Your task to perform on an android device: turn off notifications settings in the gmail app Image 0: 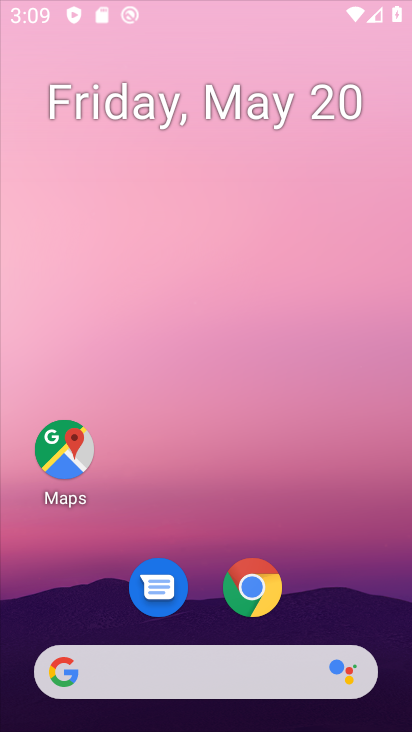
Step 0: press home button
Your task to perform on an android device: turn off notifications settings in the gmail app Image 1: 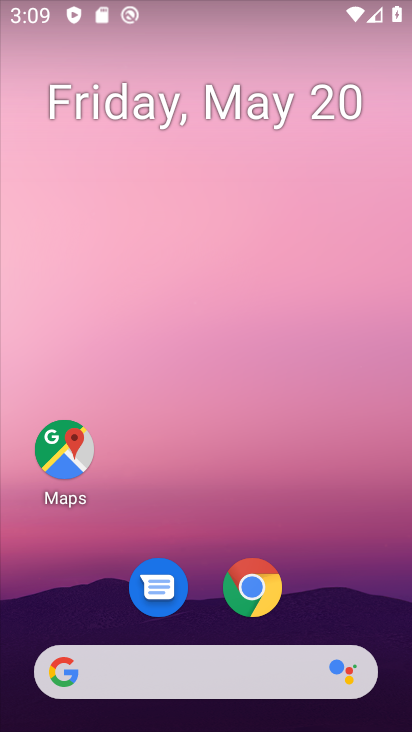
Step 1: drag from (345, 600) to (296, 63)
Your task to perform on an android device: turn off notifications settings in the gmail app Image 2: 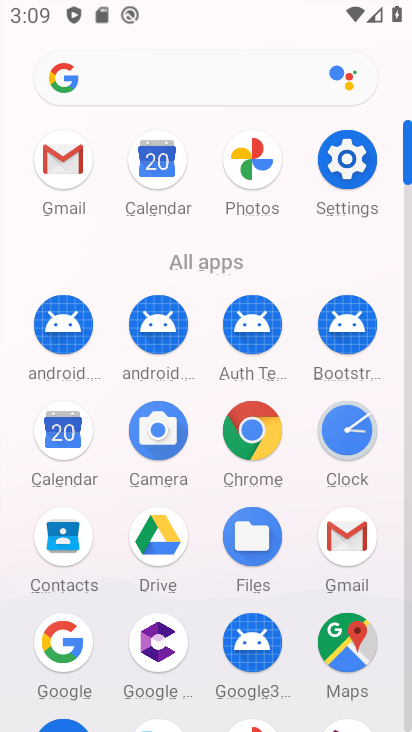
Step 2: click (351, 532)
Your task to perform on an android device: turn off notifications settings in the gmail app Image 3: 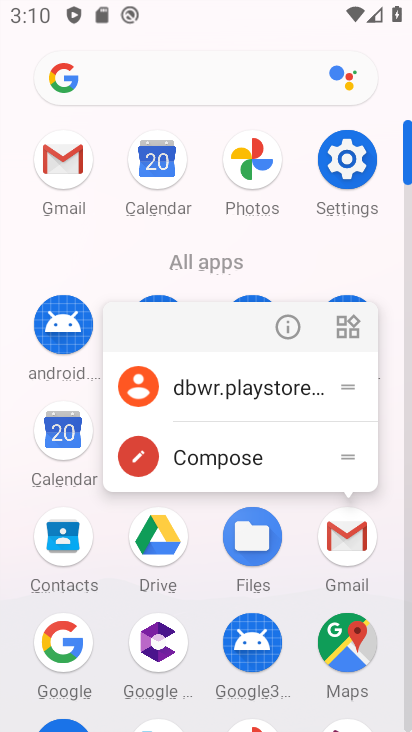
Step 3: click (293, 323)
Your task to perform on an android device: turn off notifications settings in the gmail app Image 4: 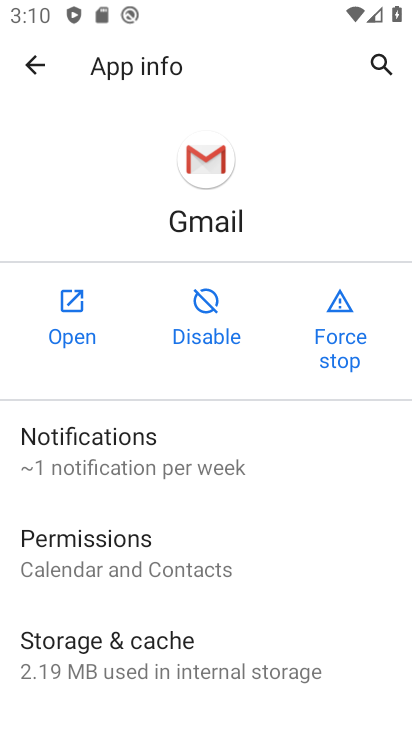
Step 4: click (202, 464)
Your task to perform on an android device: turn off notifications settings in the gmail app Image 5: 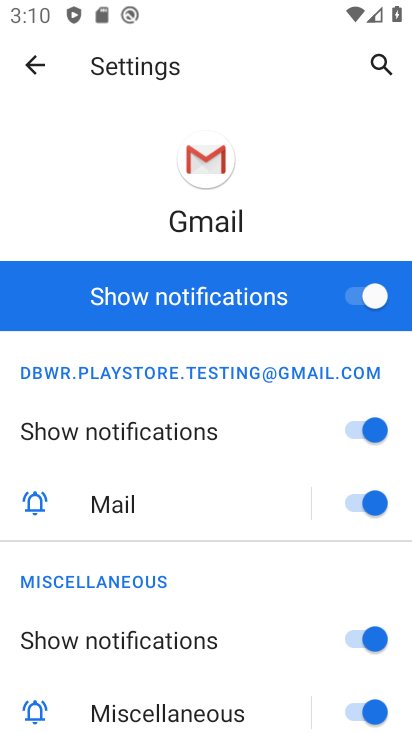
Step 5: click (363, 300)
Your task to perform on an android device: turn off notifications settings in the gmail app Image 6: 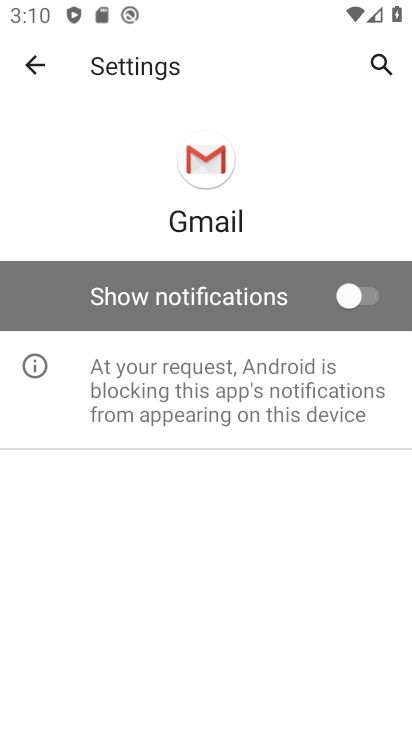
Step 6: task complete